Your task to perform on an android device: toggle notification dots Image 0: 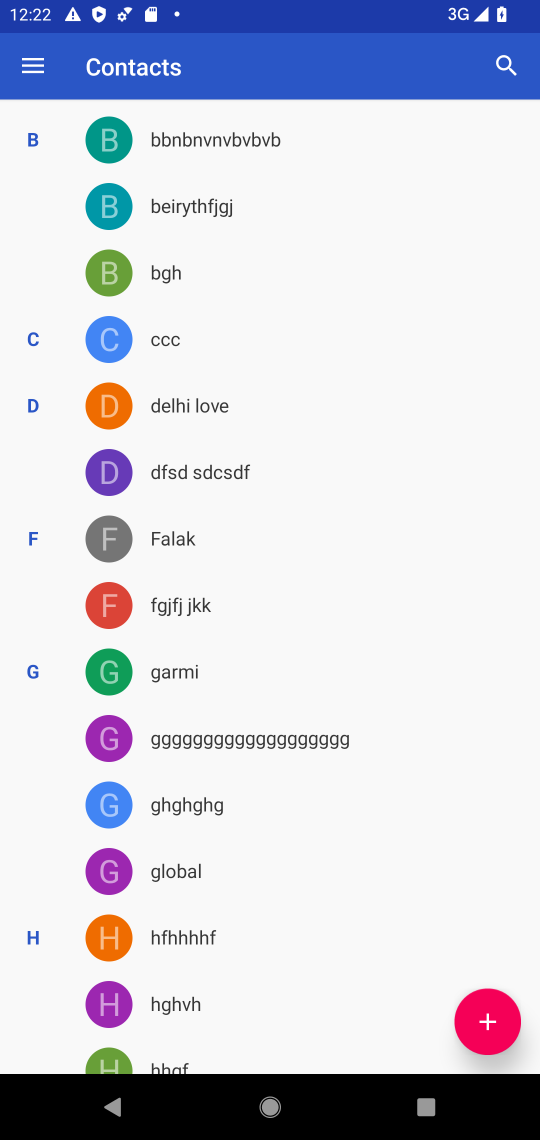
Step 0: drag from (293, 1039) to (368, 728)
Your task to perform on an android device: toggle notification dots Image 1: 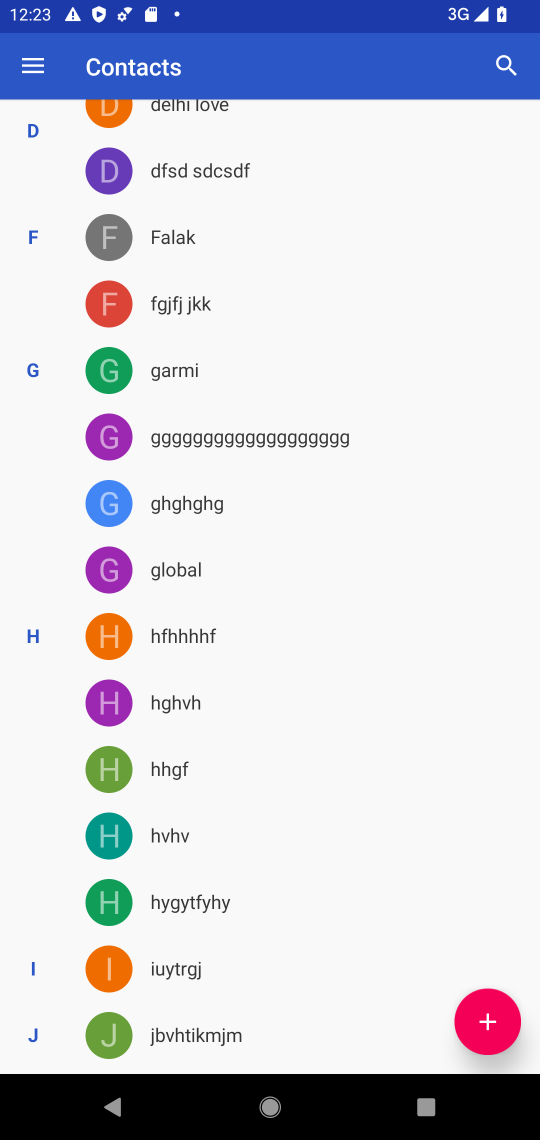
Step 1: drag from (382, 862) to (405, 330)
Your task to perform on an android device: toggle notification dots Image 2: 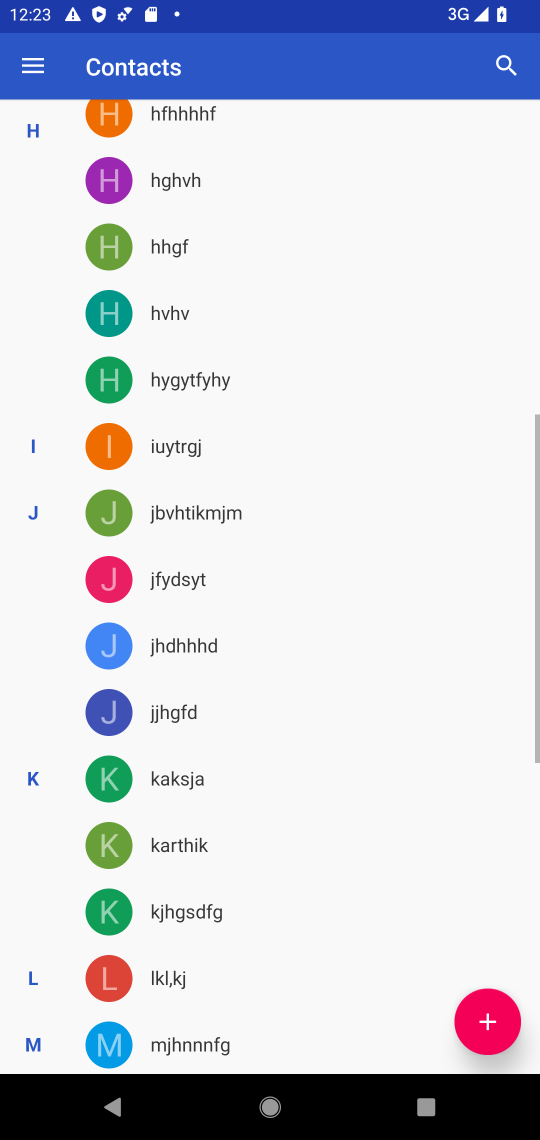
Step 2: press home button
Your task to perform on an android device: toggle notification dots Image 3: 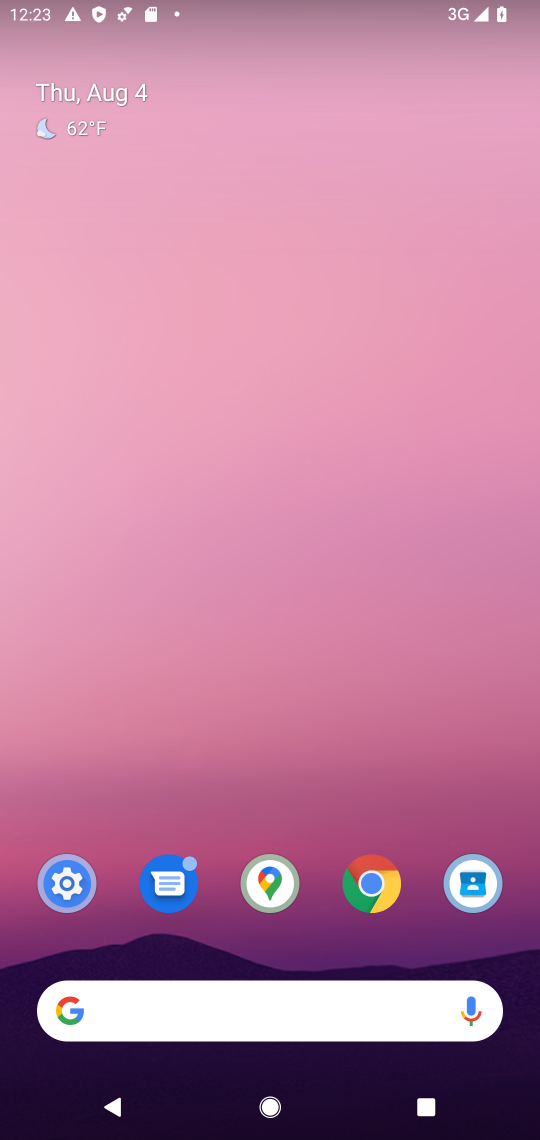
Step 3: drag from (268, 968) to (224, 260)
Your task to perform on an android device: toggle notification dots Image 4: 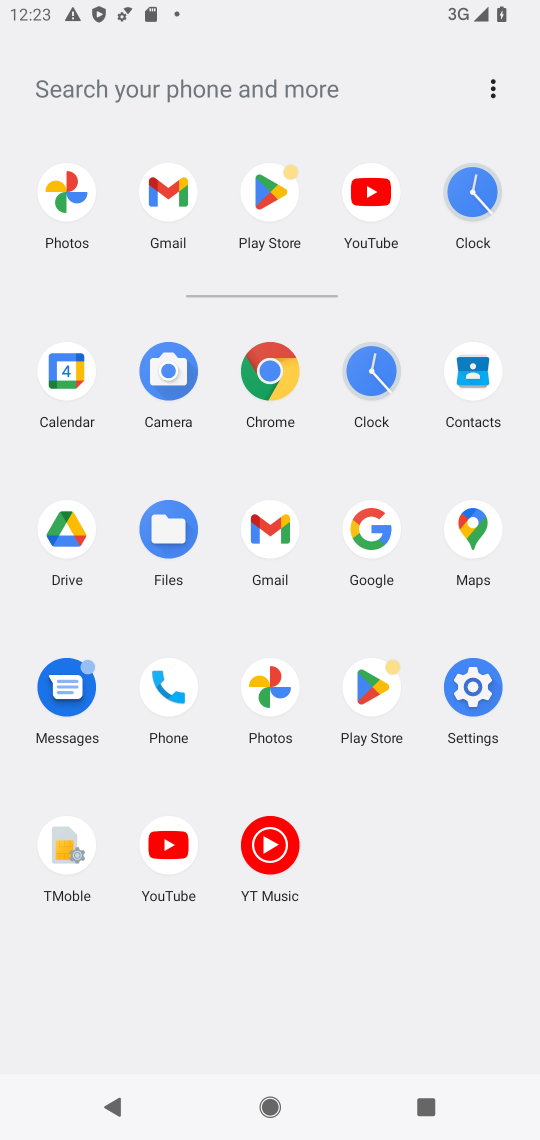
Step 4: click (478, 691)
Your task to perform on an android device: toggle notification dots Image 5: 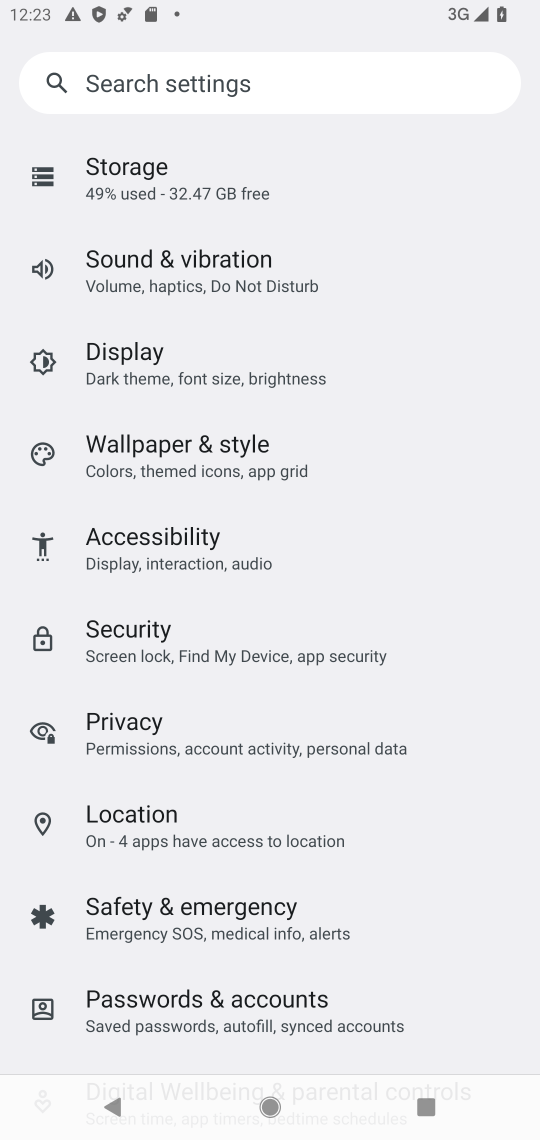
Step 5: drag from (300, 931) to (295, 584)
Your task to perform on an android device: toggle notification dots Image 6: 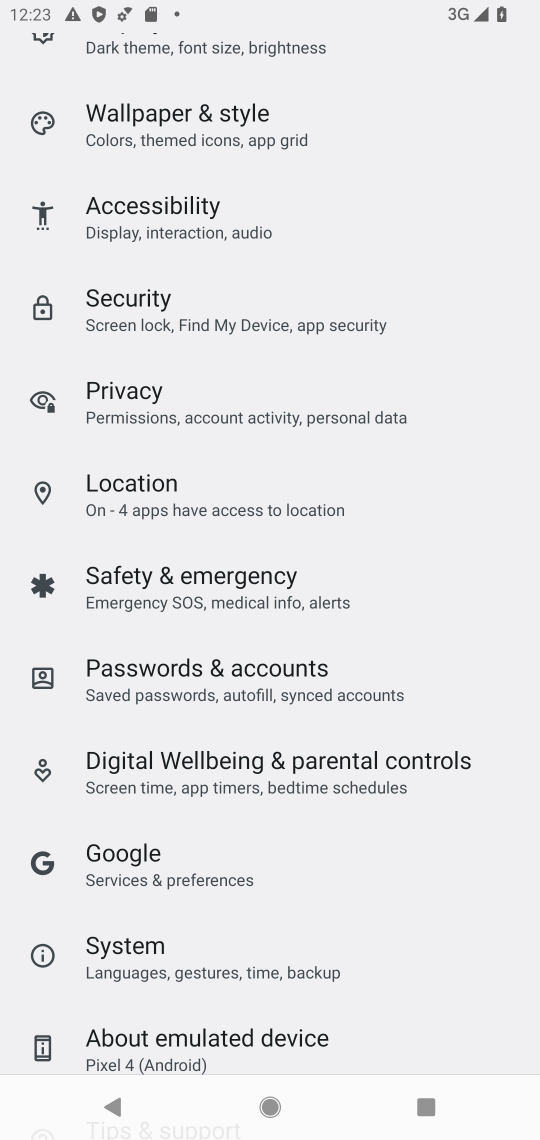
Step 6: drag from (278, 401) to (440, 1122)
Your task to perform on an android device: toggle notification dots Image 7: 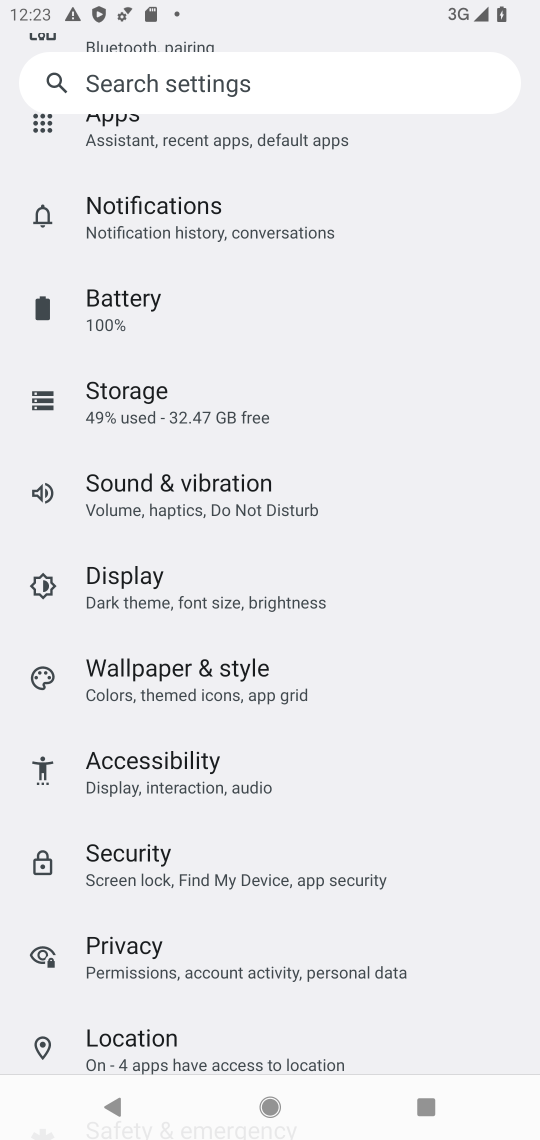
Step 7: drag from (174, 218) to (300, 949)
Your task to perform on an android device: toggle notification dots Image 8: 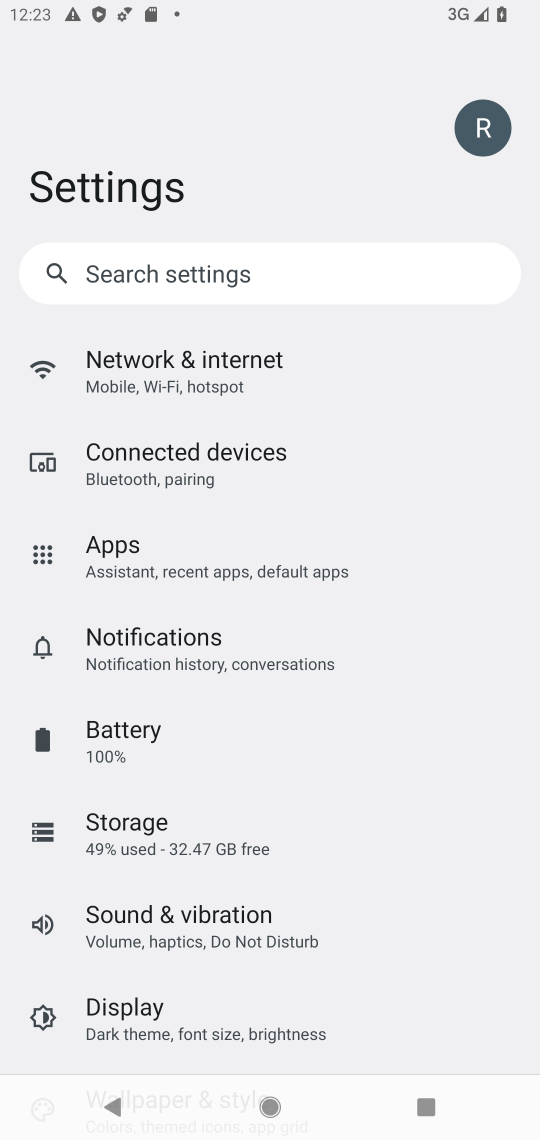
Step 8: click (219, 616)
Your task to perform on an android device: toggle notification dots Image 9: 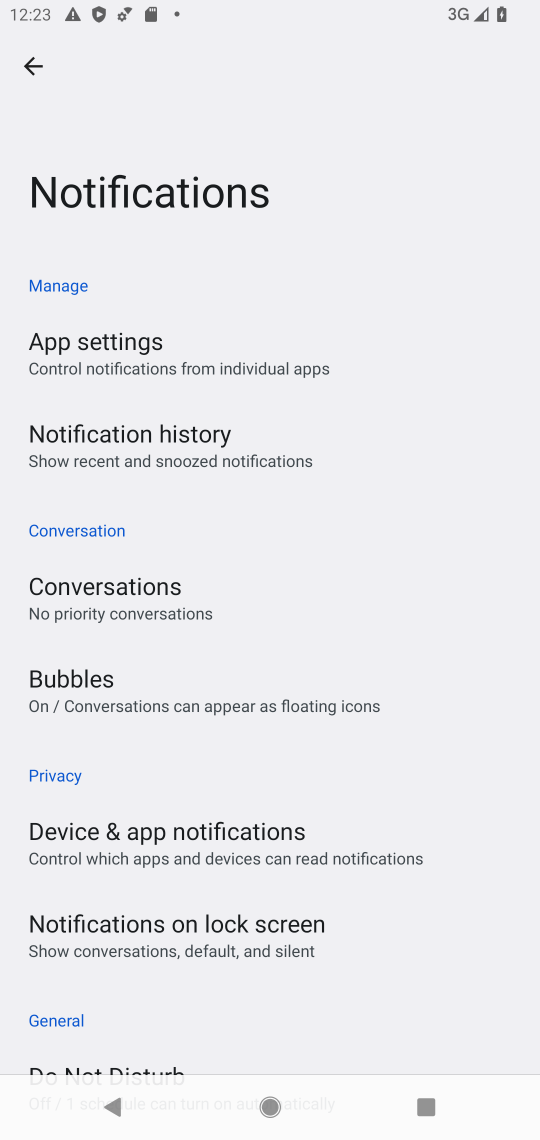
Step 9: drag from (279, 893) to (283, 291)
Your task to perform on an android device: toggle notification dots Image 10: 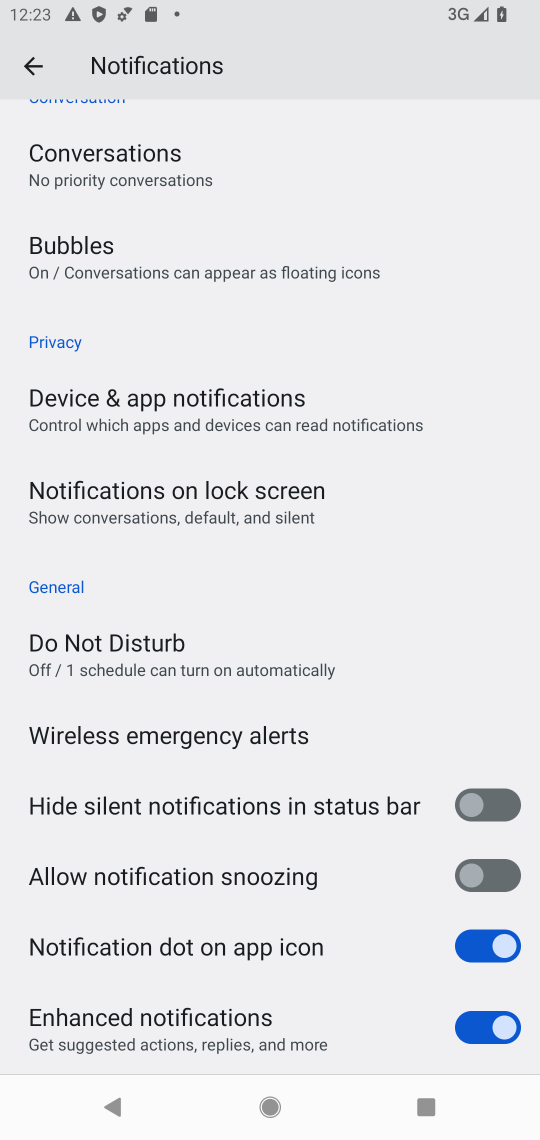
Step 10: drag from (227, 729) to (231, 459)
Your task to perform on an android device: toggle notification dots Image 11: 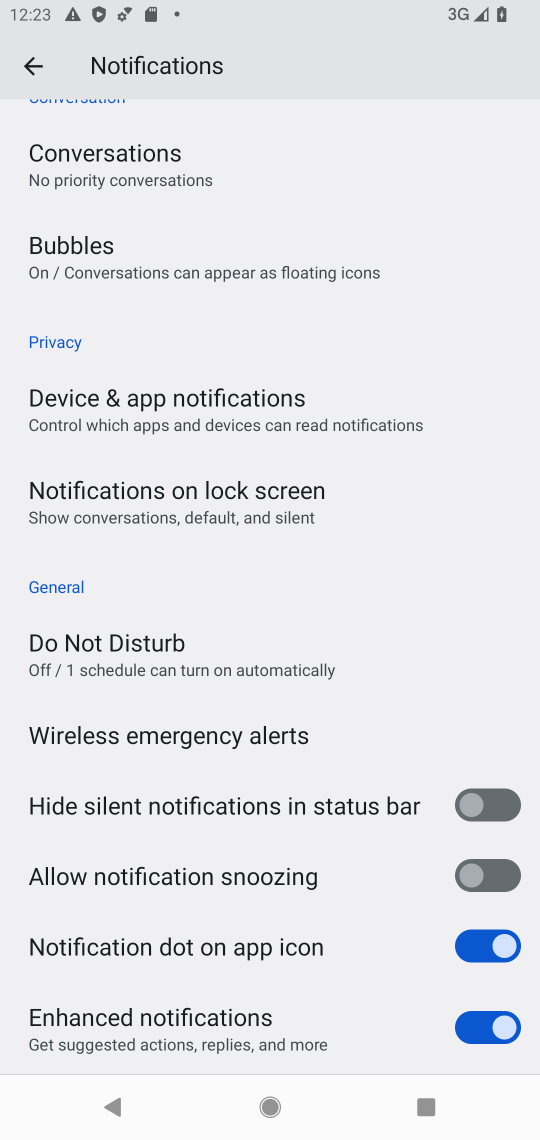
Step 11: drag from (288, 1005) to (313, 613)
Your task to perform on an android device: toggle notification dots Image 12: 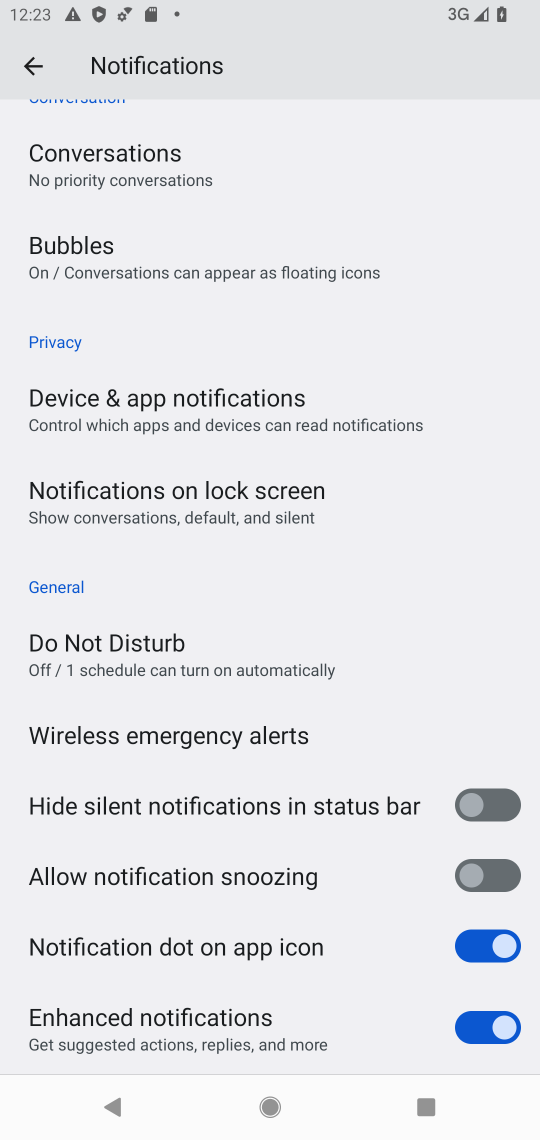
Step 12: drag from (260, 336) to (295, 871)
Your task to perform on an android device: toggle notification dots Image 13: 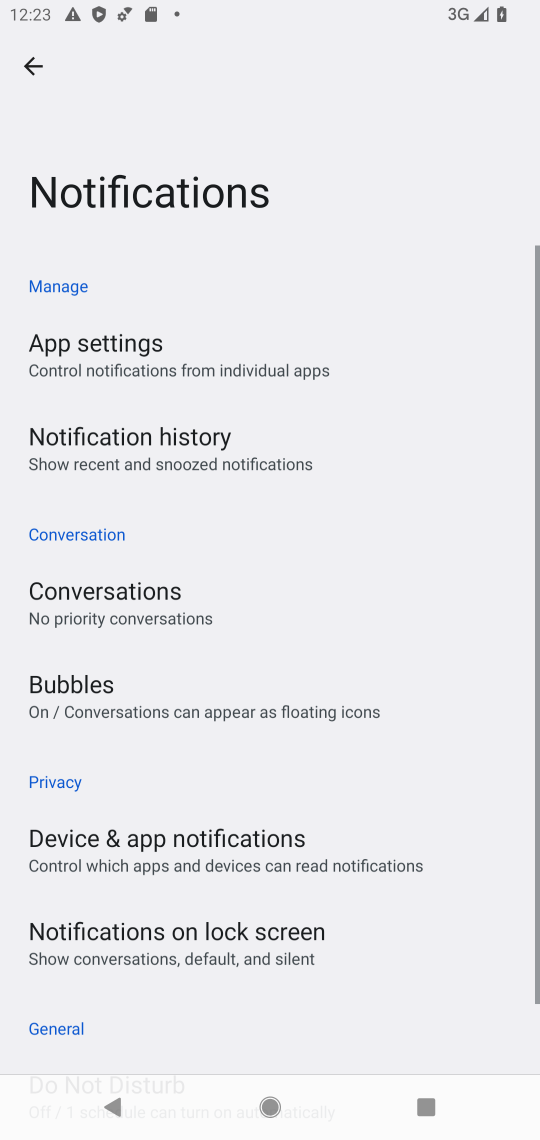
Step 13: drag from (300, 847) to (418, 374)
Your task to perform on an android device: toggle notification dots Image 14: 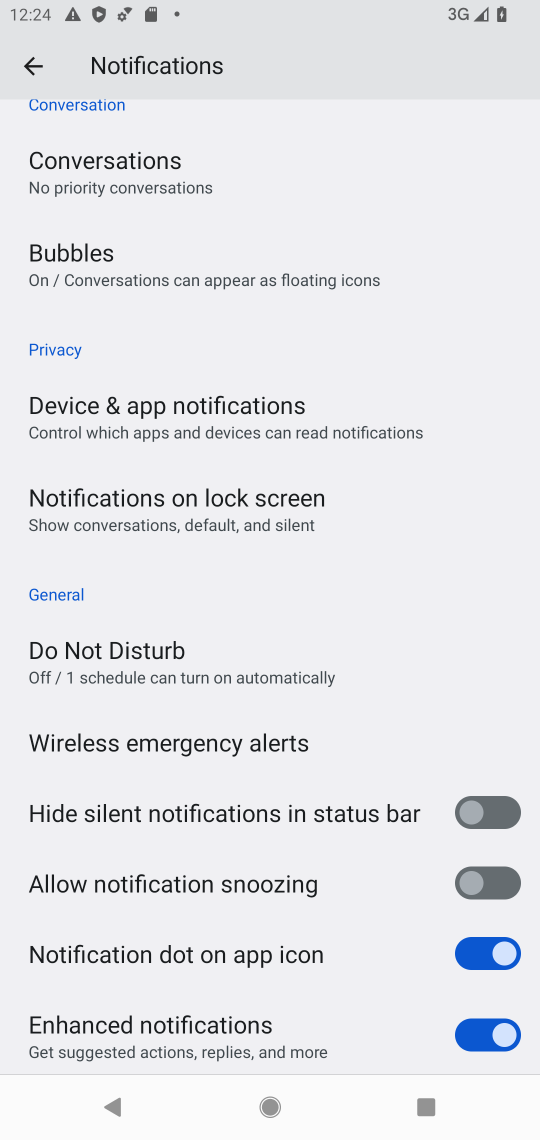
Step 14: click (496, 943)
Your task to perform on an android device: toggle notification dots Image 15: 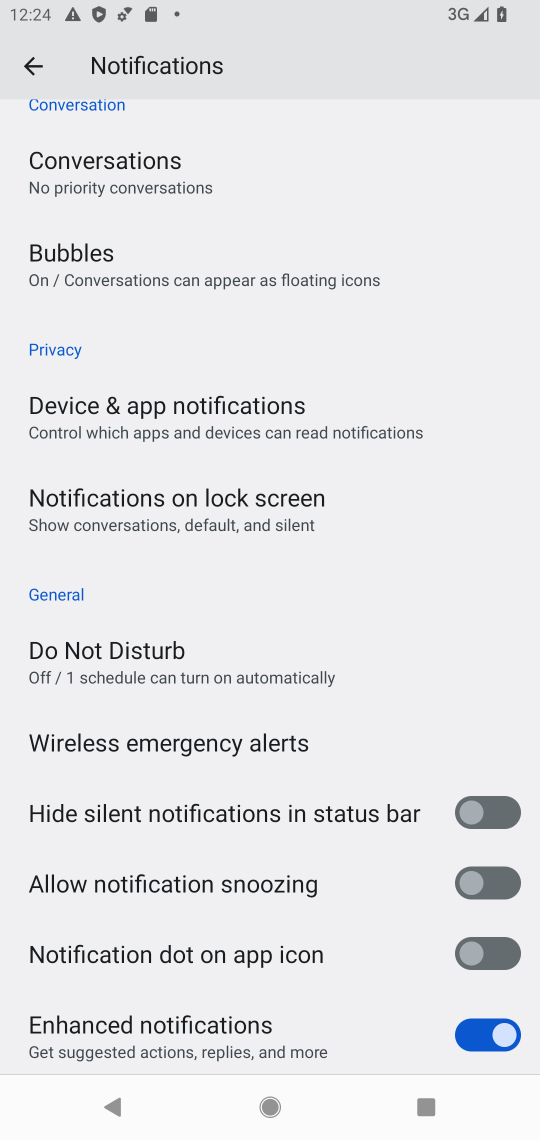
Step 15: click (454, 953)
Your task to perform on an android device: toggle notification dots Image 16: 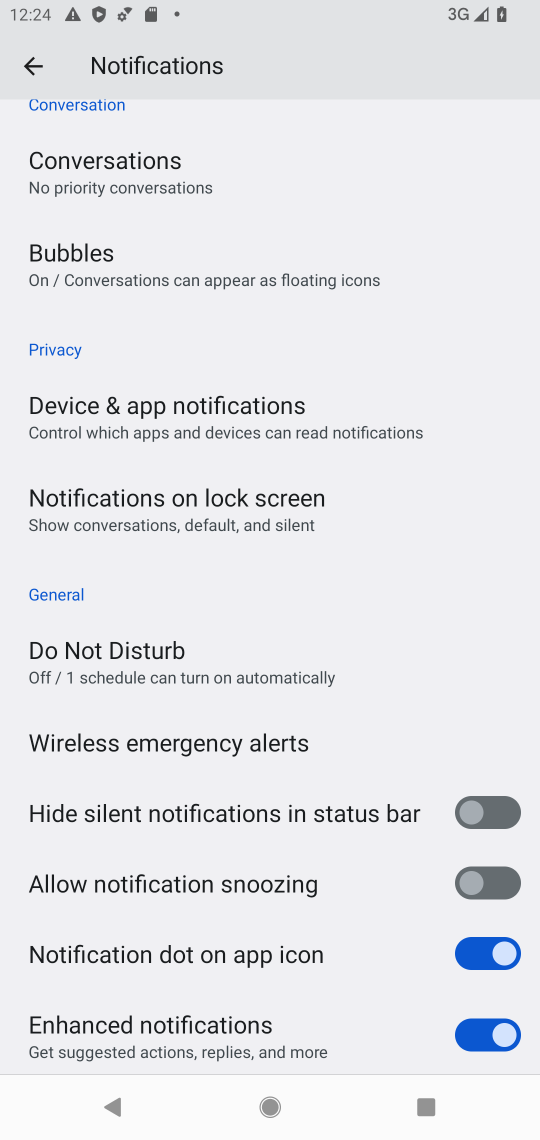
Step 16: task complete